Your task to perform on an android device: Go to Android settings Image 0: 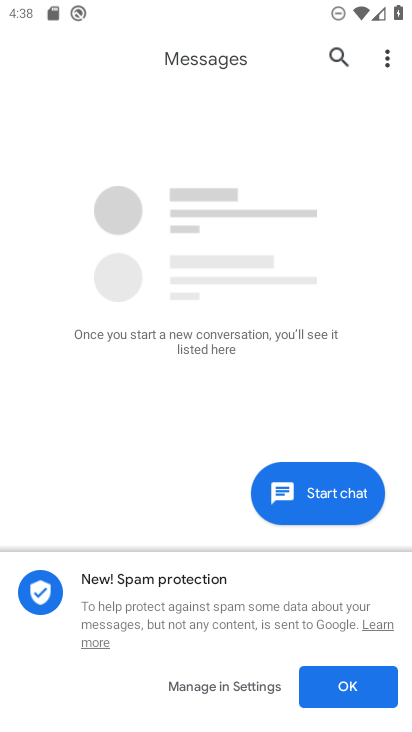
Step 0: press back button
Your task to perform on an android device: Go to Android settings Image 1: 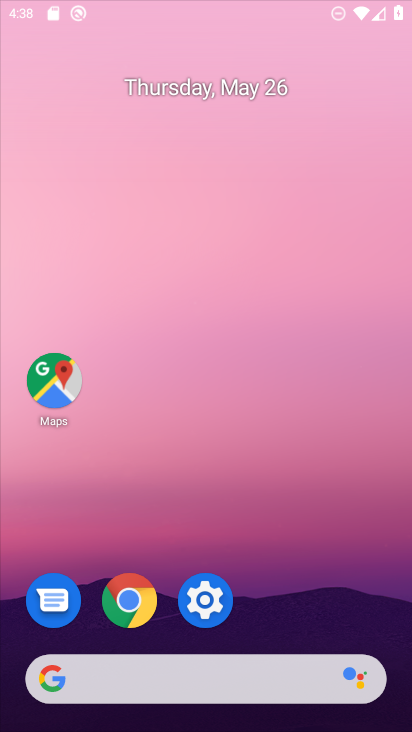
Step 1: press back button
Your task to perform on an android device: Go to Android settings Image 2: 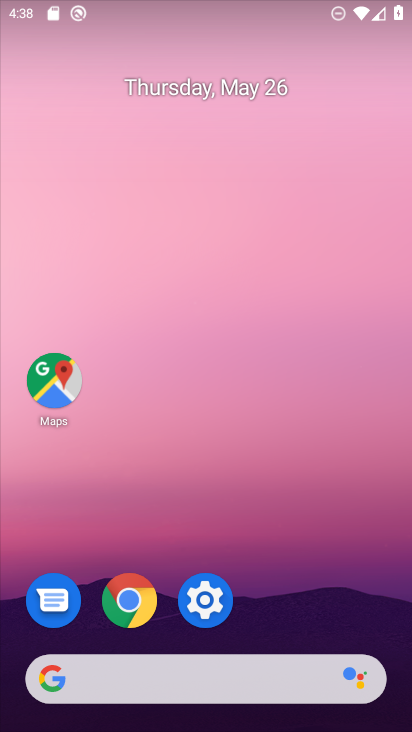
Step 2: press back button
Your task to perform on an android device: Go to Android settings Image 3: 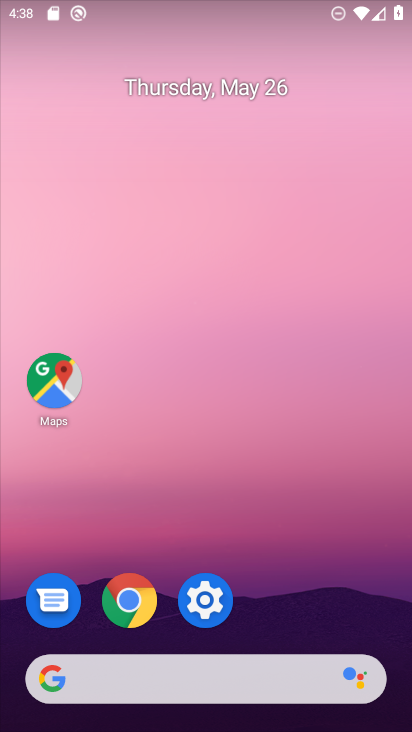
Step 3: drag from (271, 599) to (180, 85)
Your task to perform on an android device: Go to Android settings Image 4: 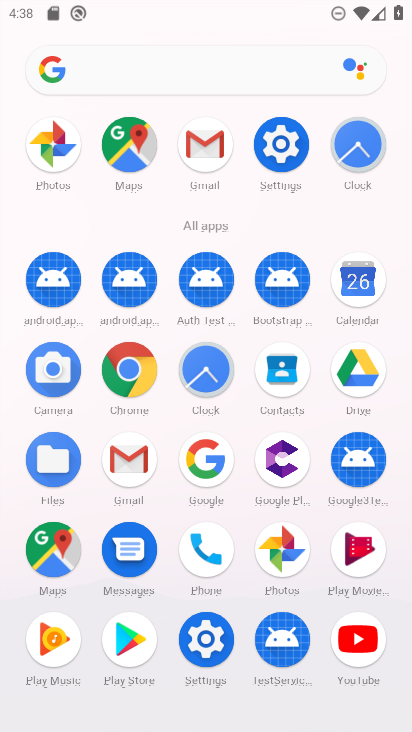
Step 4: click (197, 640)
Your task to perform on an android device: Go to Android settings Image 5: 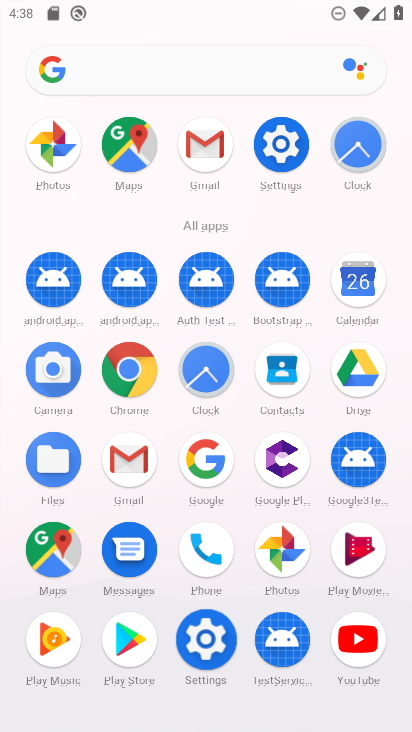
Step 5: click (198, 639)
Your task to perform on an android device: Go to Android settings Image 6: 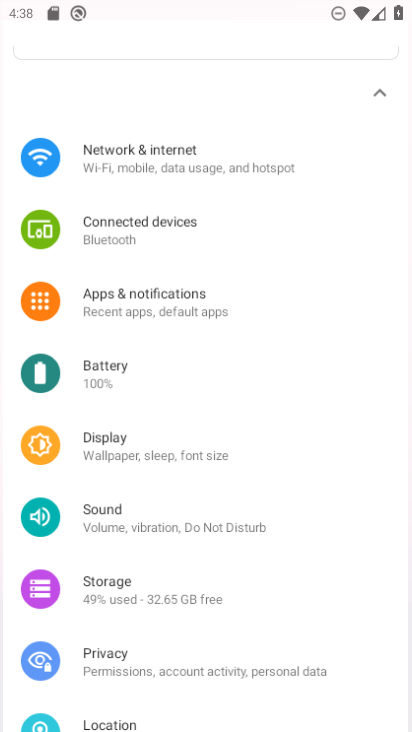
Step 6: click (198, 639)
Your task to perform on an android device: Go to Android settings Image 7: 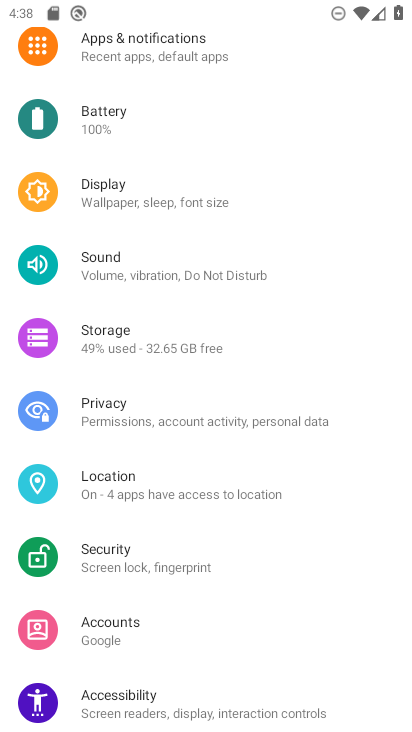
Step 7: click (198, 639)
Your task to perform on an android device: Go to Android settings Image 8: 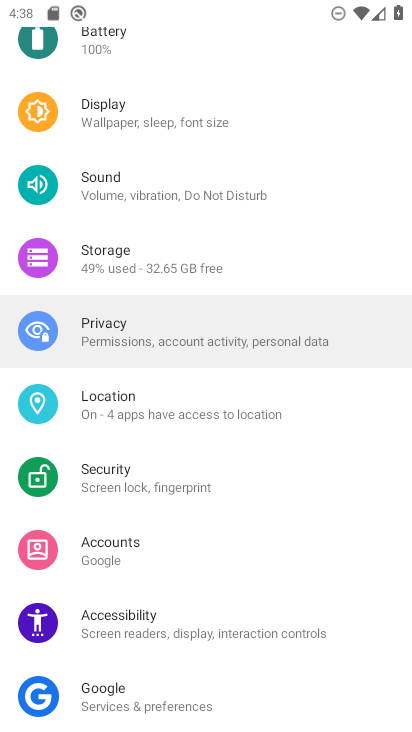
Step 8: click (202, 637)
Your task to perform on an android device: Go to Android settings Image 9: 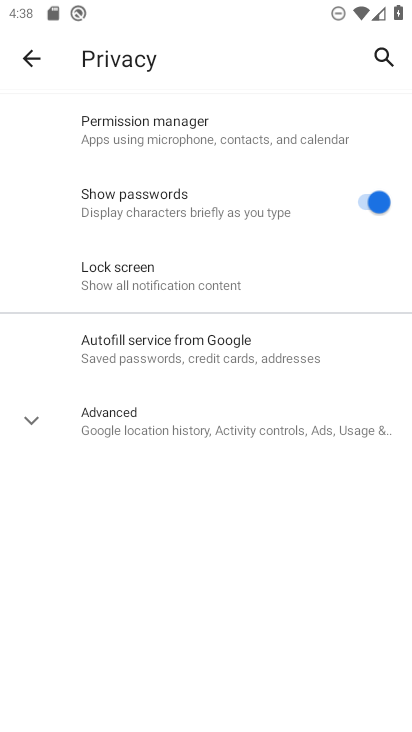
Step 9: click (34, 55)
Your task to perform on an android device: Go to Android settings Image 10: 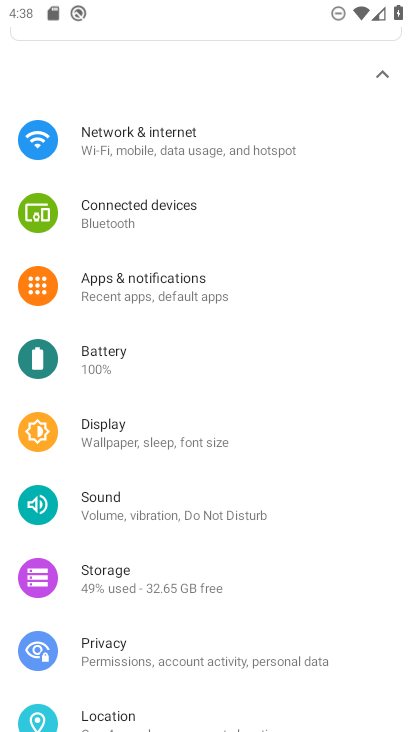
Step 10: drag from (126, 562) to (88, 179)
Your task to perform on an android device: Go to Android settings Image 11: 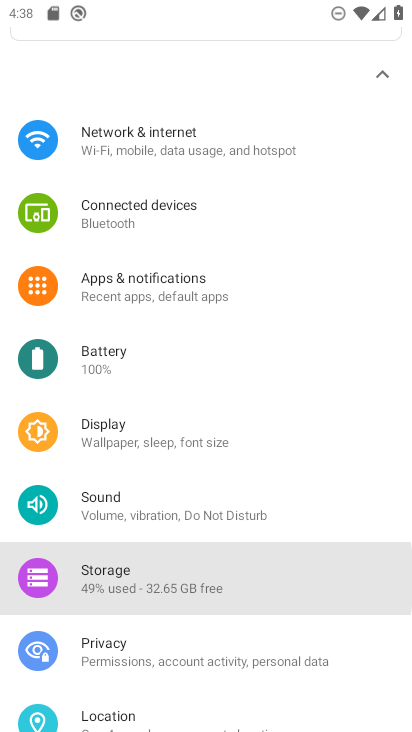
Step 11: drag from (147, 447) to (144, 164)
Your task to perform on an android device: Go to Android settings Image 12: 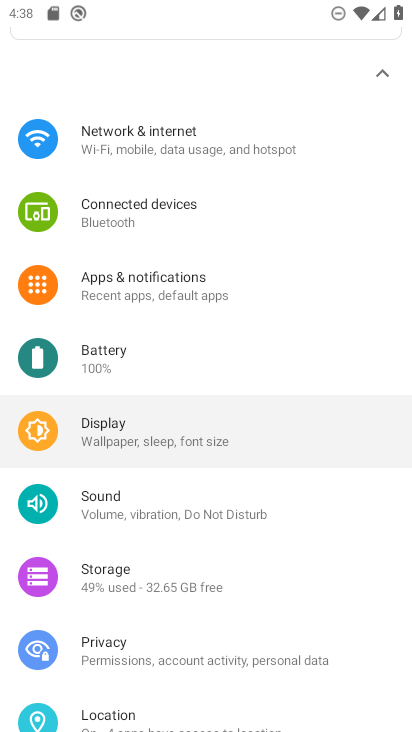
Step 12: drag from (220, 410) to (213, 103)
Your task to perform on an android device: Go to Android settings Image 13: 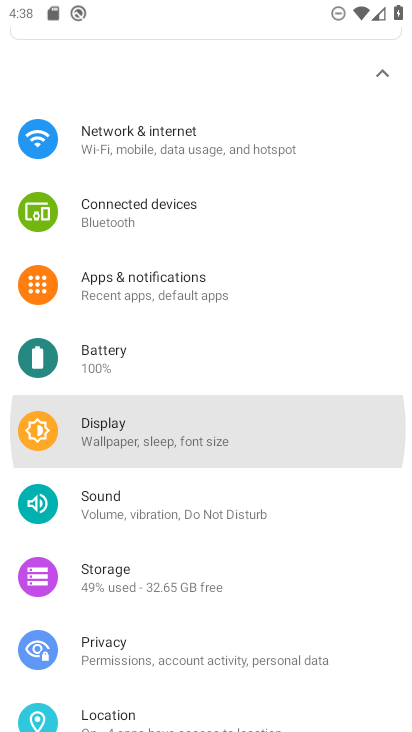
Step 13: drag from (235, 541) to (224, 90)
Your task to perform on an android device: Go to Android settings Image 14: 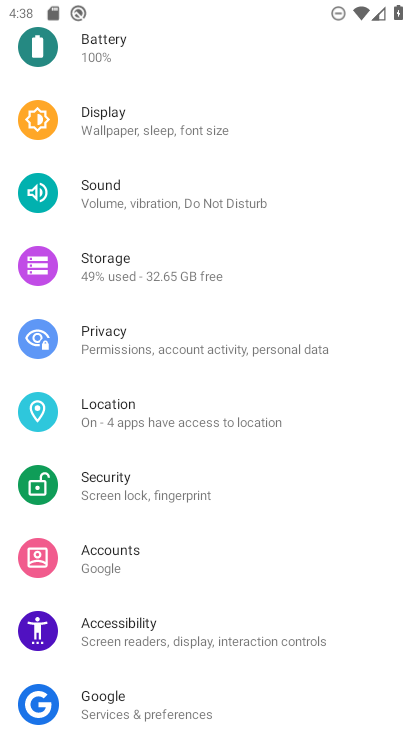
Step 14: drag from (190, 542) to (178, 206)
Your task to perform on an android device: Go to Android settings Image 15: 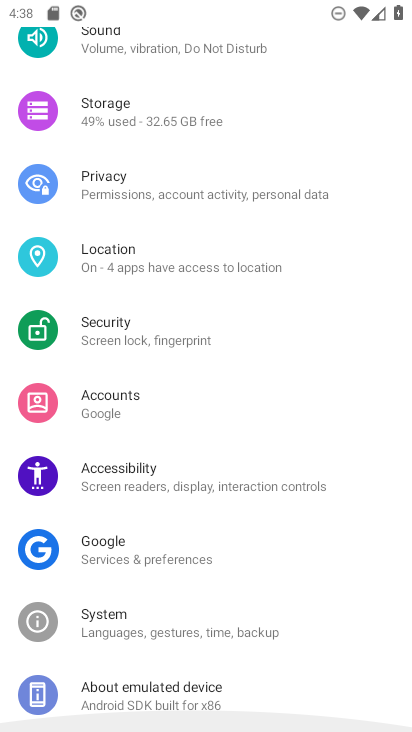
Step 15: drag from (190, 348) to (190, 139)
Your task to perform on an android device: Go to Android settings Image 16: 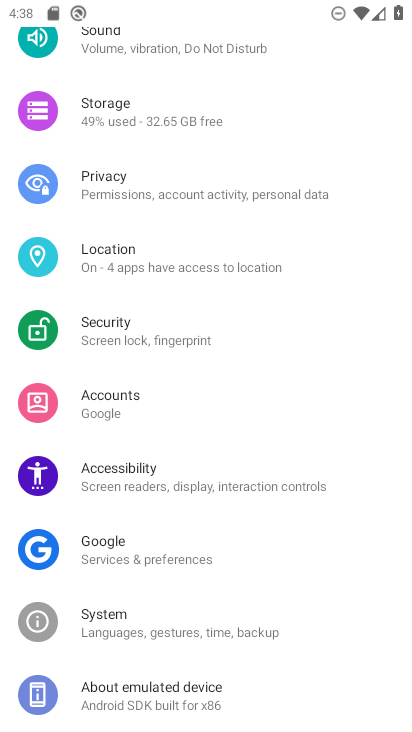
Step 16: drag from (168, 582) to (178, 71)
Your task to perform on an android device: Go to Android settings Image 17: 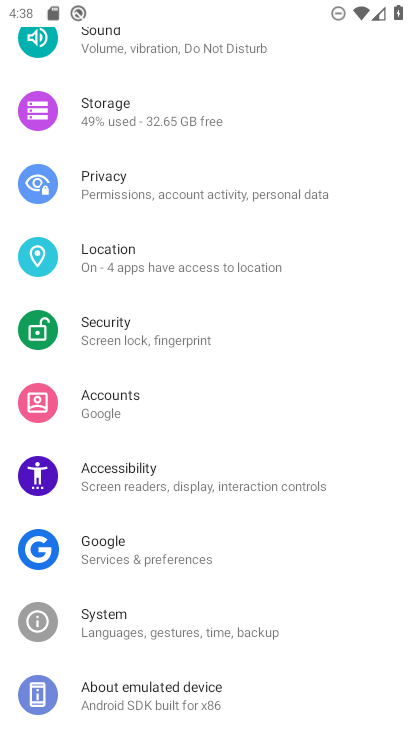
Step 17: drag from (308, 615) to (274, 191)
Your task to perform on an android device: Go to Android settings Image 18: 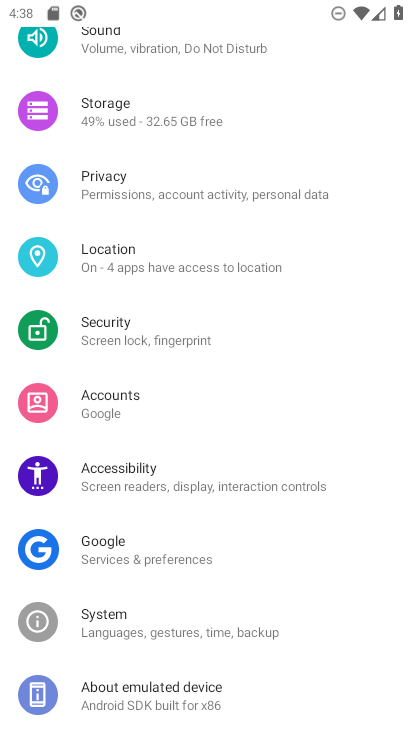
Step 18: drag from (204, 481) to (160, 231)
Your task to perform on an android device: Go to Android settings Image 19: 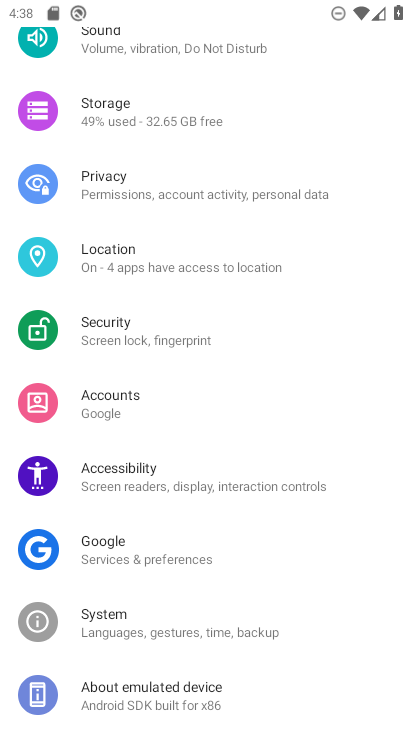
Step 19: click (167, 703)
Your task to perform on an android device: Go to Android settings Image 20: 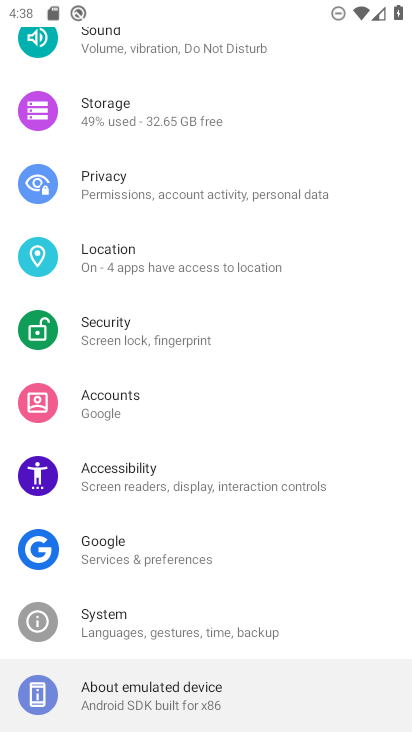
Step 20: click (166, 702)
Your task to perform on an android device: Go to Android settings Image 21: 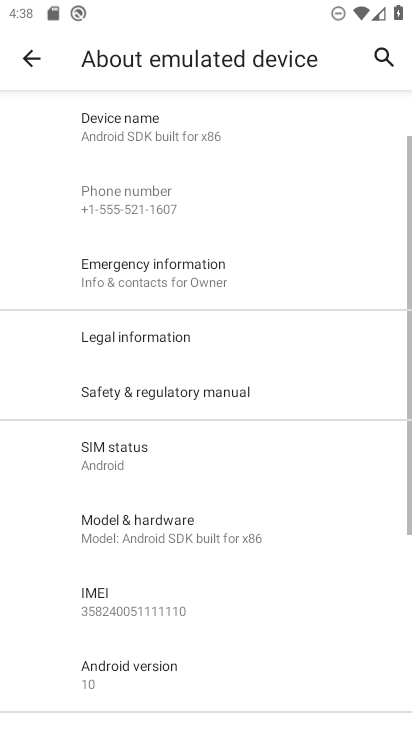
Step 21: click (169, 700)
Your task to perform on an android device: Go to Android settings Image 22: 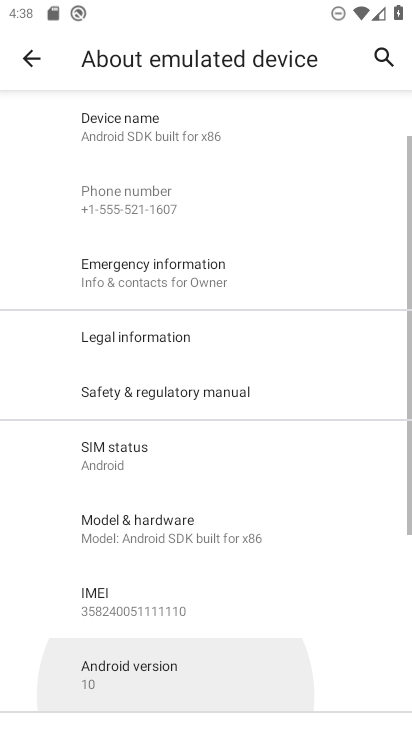
Step 22: click (170, 703)
Your task to perform on an android device: Go to Android settings Image 23: 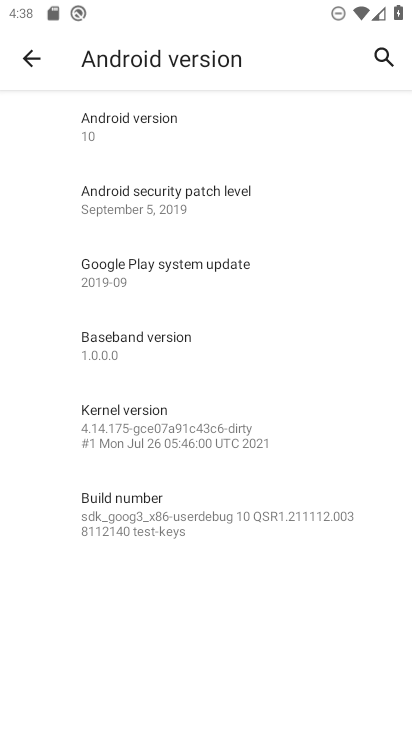
Step 23: task complete